Your task to perform on an android device: Play the last video I watched on Youtube Image 0: 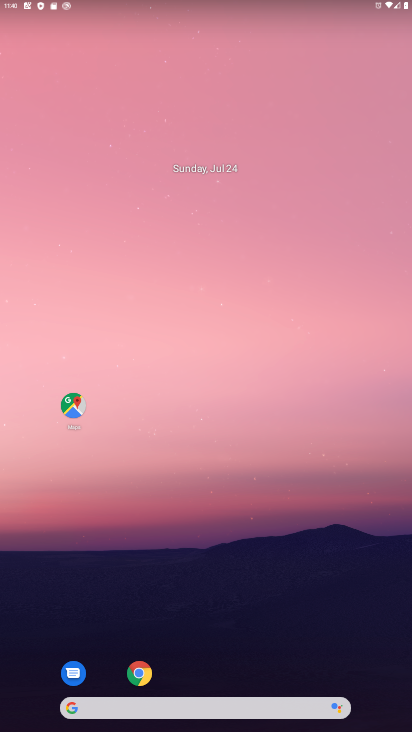
Step 0: drag from (289, 649) to (259, 51)
Your task to perform on an android device: Play the last video I watched on Youtube Image 1: 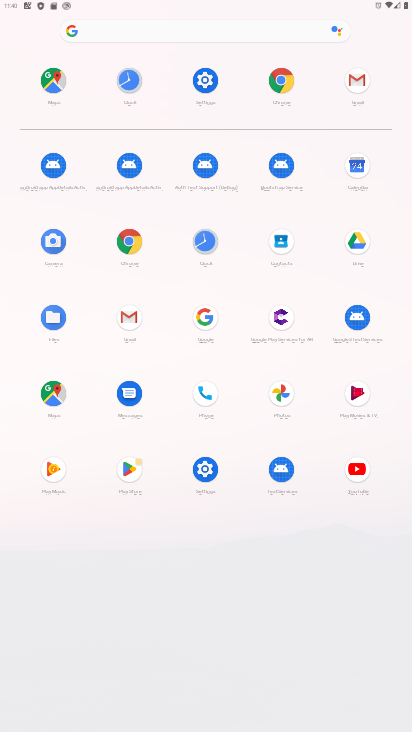
Step 1: click (345, 466)
Your task to perform on an android device: Play the last video I watched on Youtube Image 2: 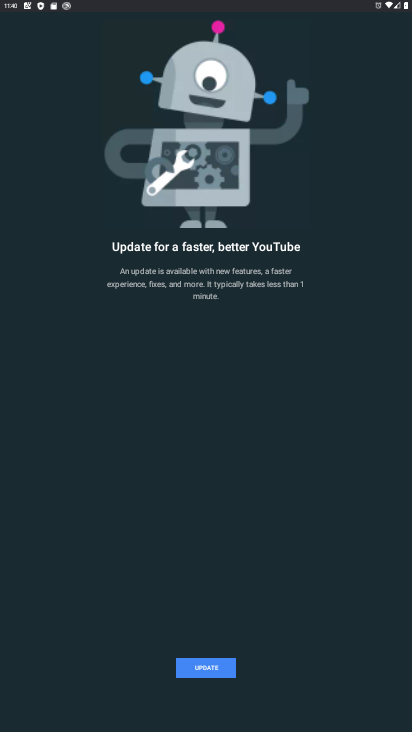
Step 2: click (220, 665)
Your task to perform on an android device: Play the last video I watched on Youtube Image 3: 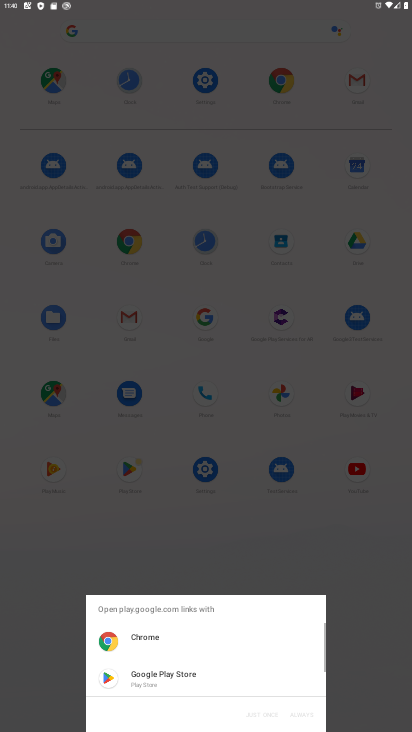
Step 3: click (175, 675)
Your task to perform on an android device: Play the last video I watched on Youtube Image 4: 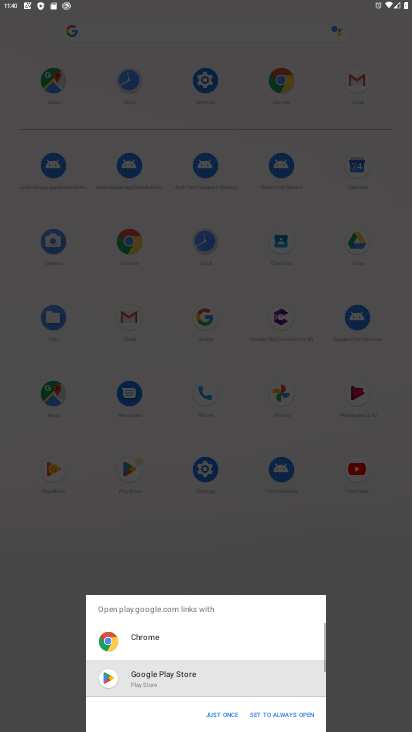
Step 4: click (200, 712)
Your task to perform on an android device: Play the last video I watched on Youtube Image 5: 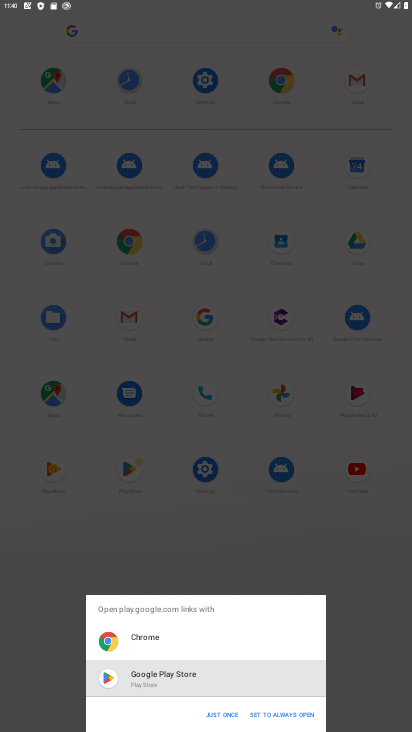
Step 5: click (222, 711)
Your task to perform on an android device: Play the last video I watched on Youtube Image 6: 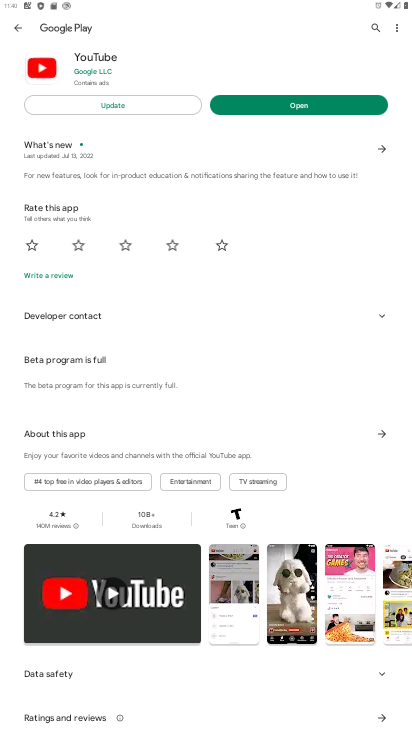
Step 6: click (149, 97)
Your task to perform on an android device: Play the last video I watched on Youtube Image 7: 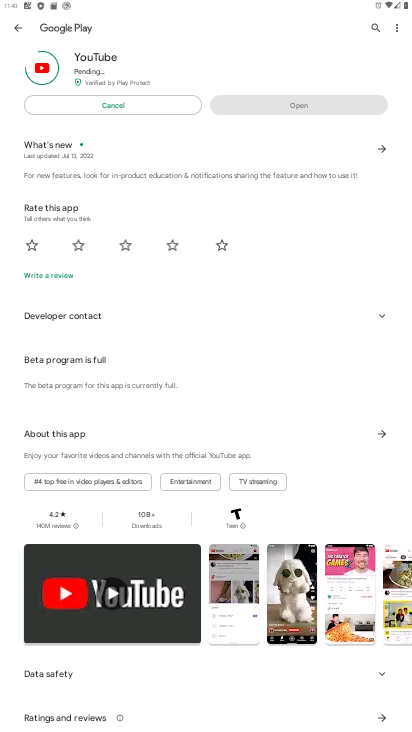
Step 7: task complete